Your task to perform on an android device: Go to ESPN.com Image 0: 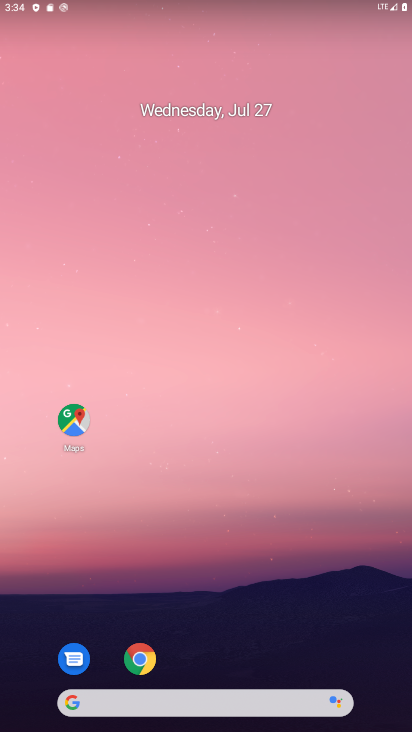
Step 0: click (148, 662)
Your task to perform on an android device: Go to ESPN.com Image 1: 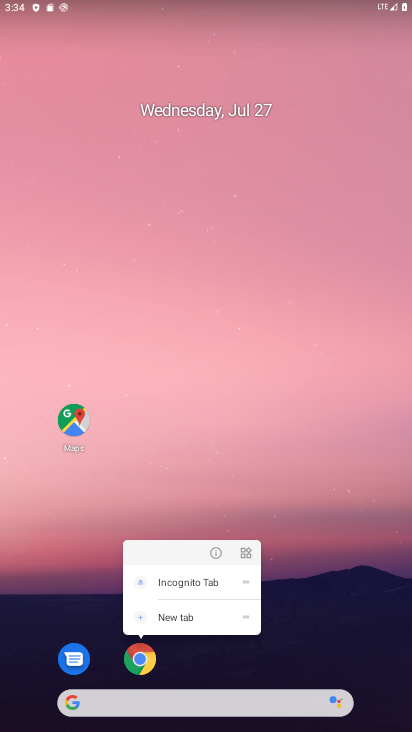
Step 1: click (139, 665)
Your task to perform on an android device: Go to ESPN.com Image 2: 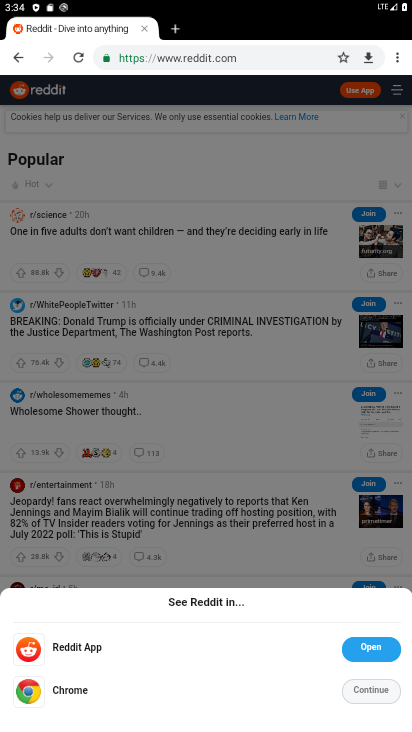
Step 2: click (188, 58)
Your task to perform on an android device: Go to ESPN.com Image 3: 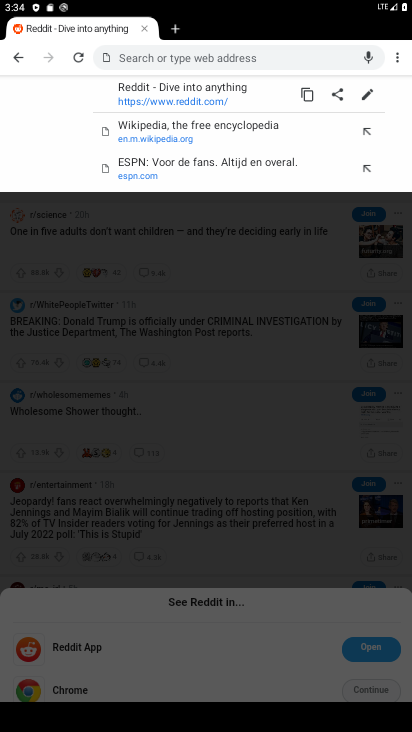
Step 3: click (155, 178)
Your task to perform on an android device: Go to ESPN.com Image 4: 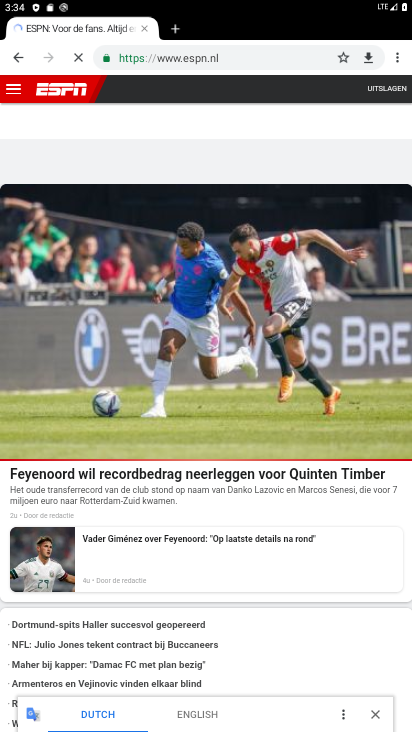
Step 4: task complete